Your task to perform on an android device: visit the assistant section in the google photos Image 0: 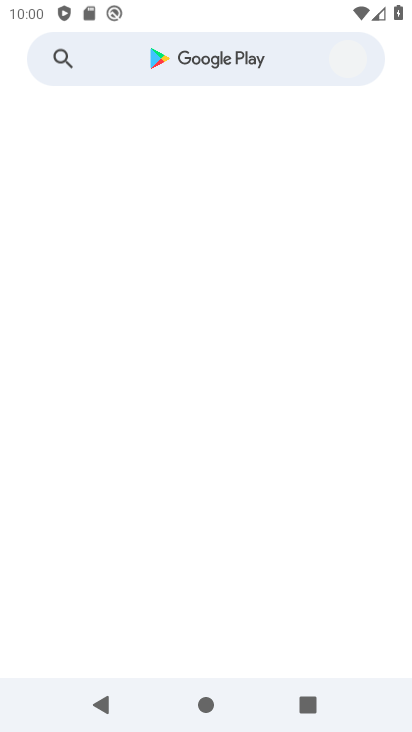
Step 0: press home button
Your task to perform on an android device: visit the assistant section in the google photos Image 1: 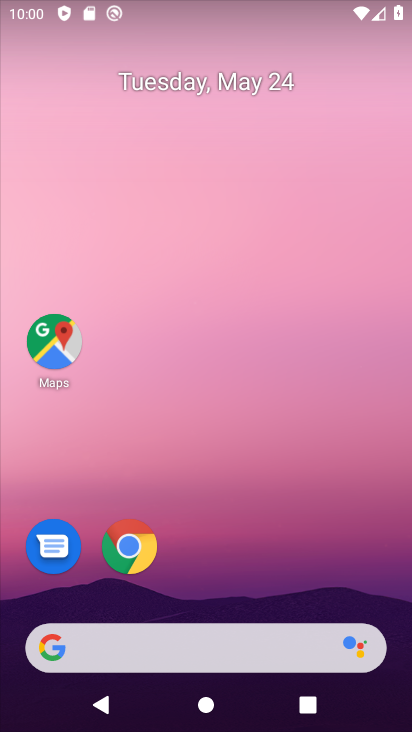
Step 1: drag from (290, 510) to (257, 46)
Your task to perform on an android device: visit the assistant section in the google photos Image 2: 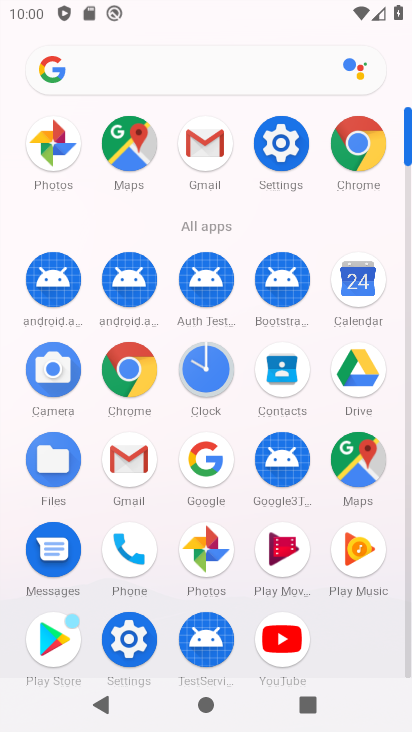
Step 2: click (197, 545)
Your task to perform on an android device: visit the assistant section in the google photos Image 3: 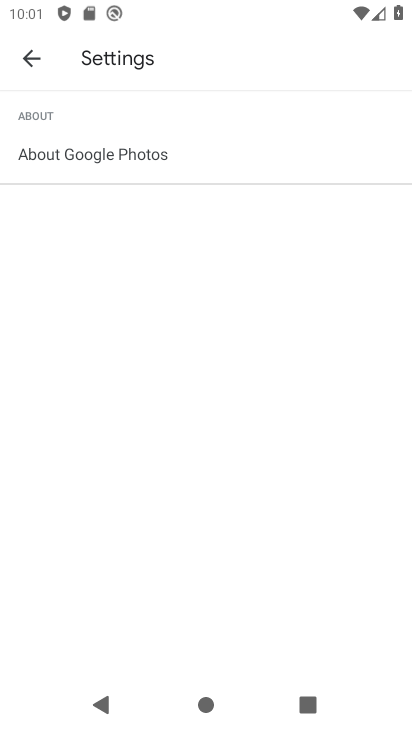
Step 3: click (35, 68)
Your task to perform on an android device: visit the assistant section in the google photos Image 4: 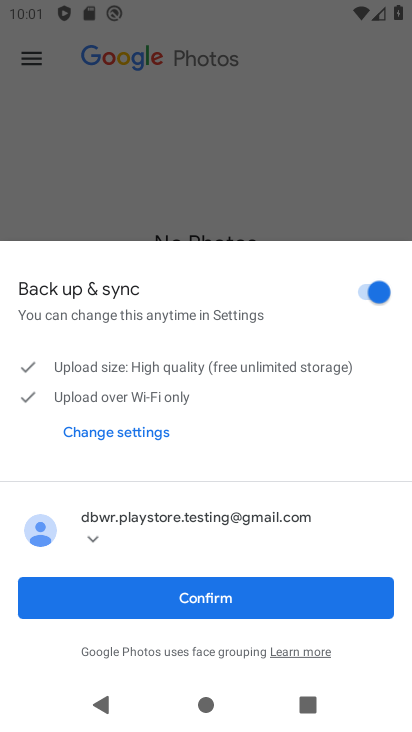
Step 4: click (220, 615)
Your task to perform on an android device: visit the assistant section in the google photos Image 5: 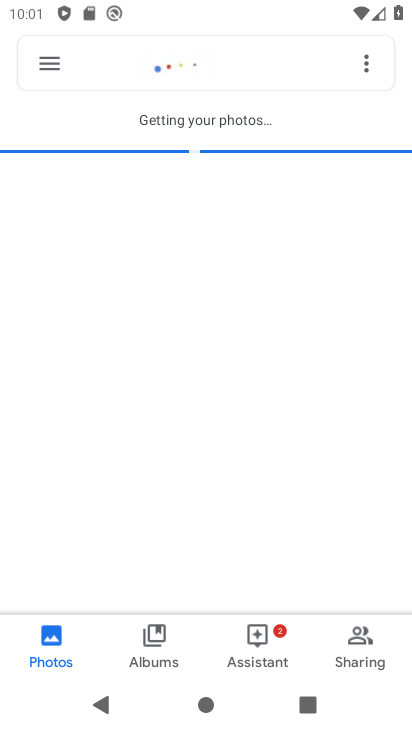
Step 5: click (268, 646)
Your task to perform on an android device: visit the assistant section in the google photos Image 6: 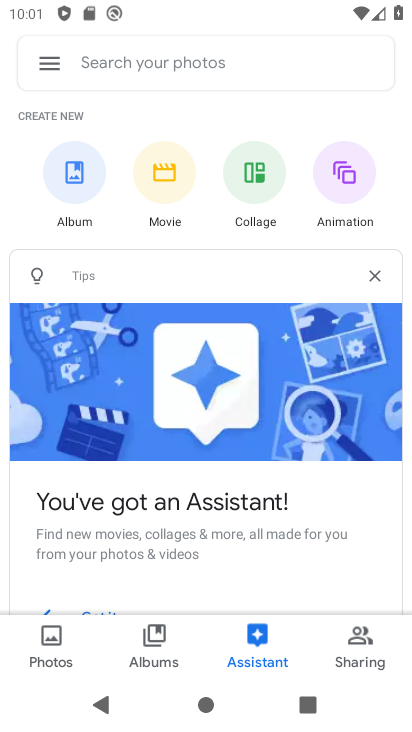
Step 6: task complete